Your task to perform on an android device: change notification settings in the gmail app Image 0: 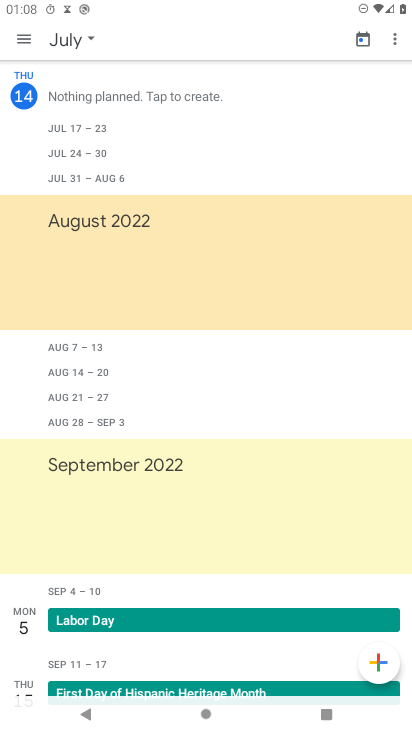
Step 0: press home button
Your task to perform on an android device: change notification settings in the gmail app Image 1: 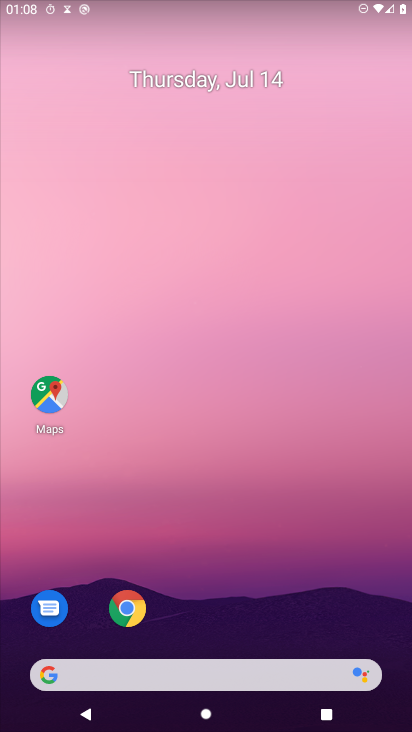
Step 1: drag from (247, 610) to (309, 0)
Your task to perform on an android device: change notification settings in the gmail app Image 2: 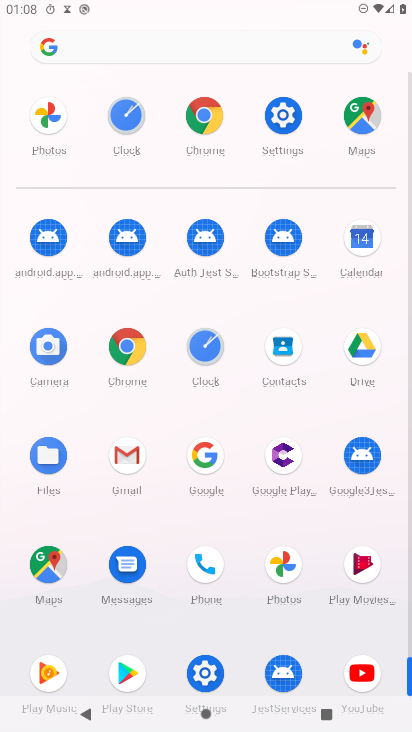
Step 2: click (131, 462)
Your task to perform on an android device: change notification settings in the gmail app Image 3: 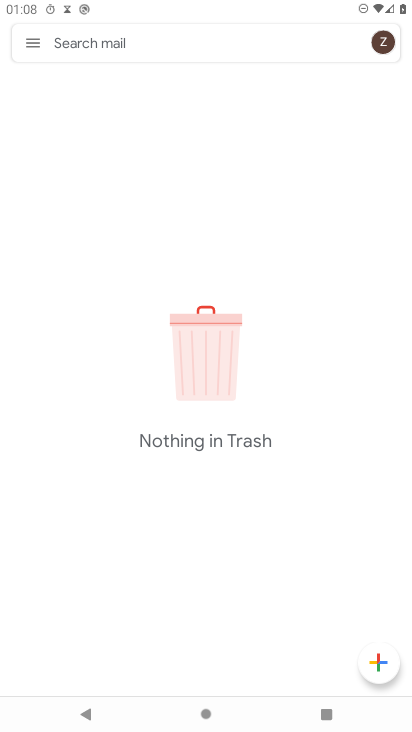
Step 3: click (35, 45)
Your task to perform on an android device: change notification settings in the gmail app Image 4: 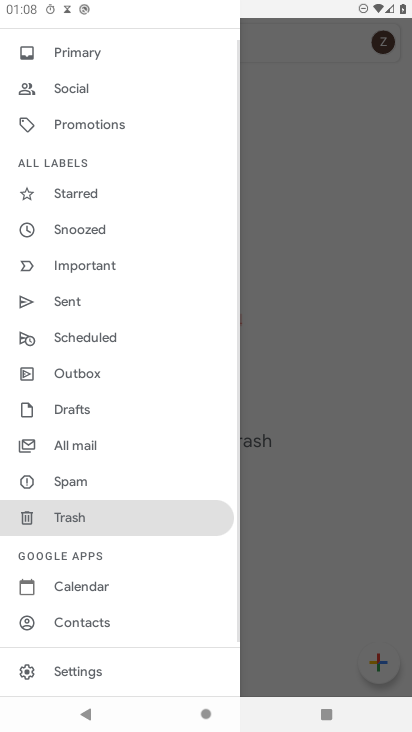
Step 4: click (103, 672)
Your task to perform on an android device: change notification settings in the gmail app Image 5: 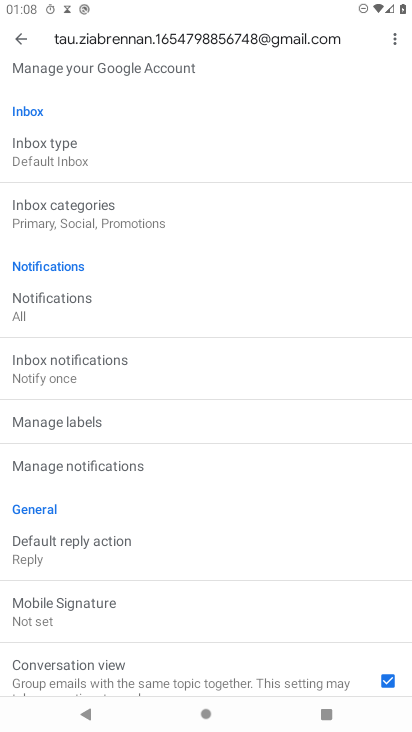
Step 5: click (60, 471)
Your task to perform on an android device: change notification settings in the gmail app Image 6: 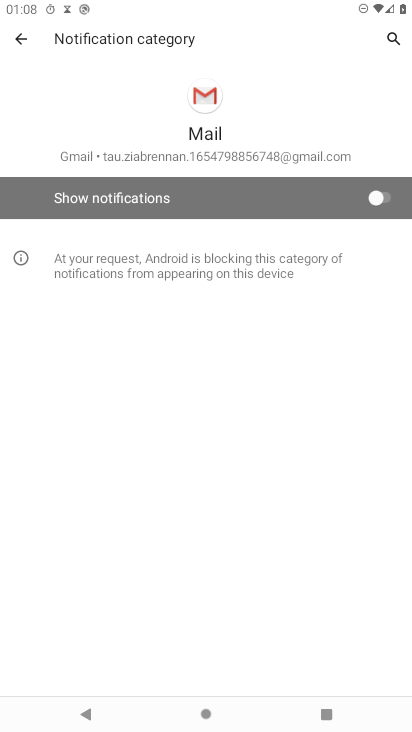
Step 6: click (385, 191)
Your task to perform on an android device: change notification settings in the gmail app Image 7: 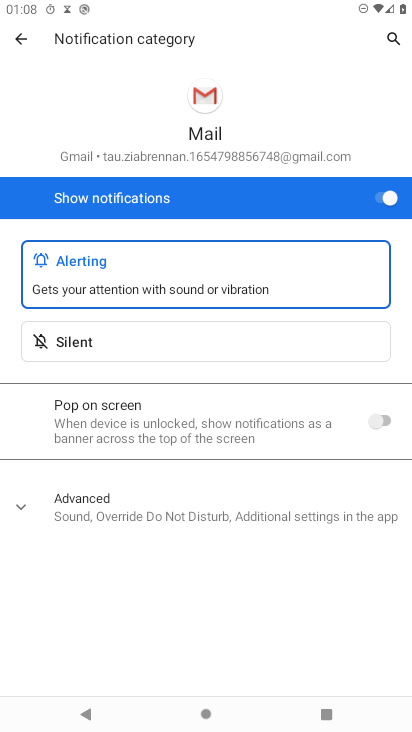
Step 7: task complete